Your task to perform on an android device: Open settings Image 0: 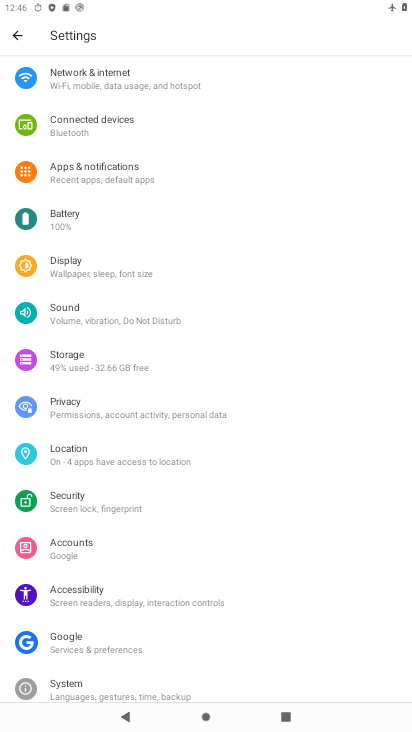
Step 0: drag from (261, 493) to (260, 253)
Your task to perform on an android device: Open settings Image 1: 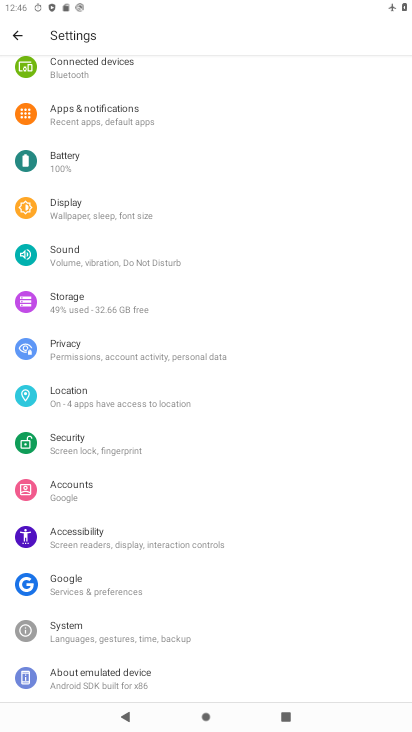
Step 1: task complete